Your task to perform on an android device: Clear the shopping cart on bestbuy. Search for logitech g933 on bestbuy, select the first entry, and add it to the cart. Image 0: 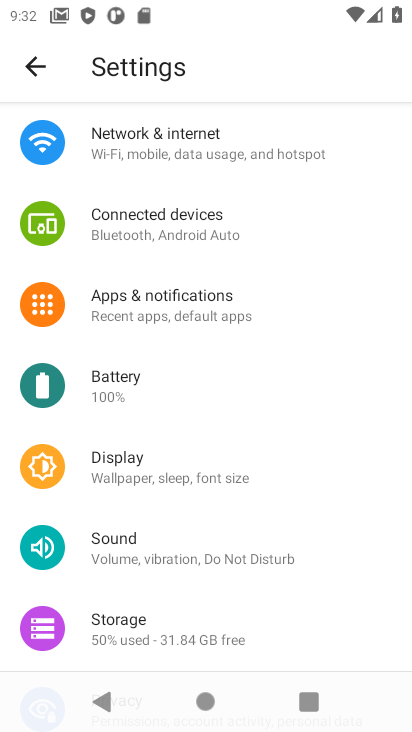
Step 0: press home button
Your task to perform on an android device: Clear the shopping cart on bestbuy. Search for logitech g933 on bestbuy, select the first entry, and add it to the cart. Image 1: 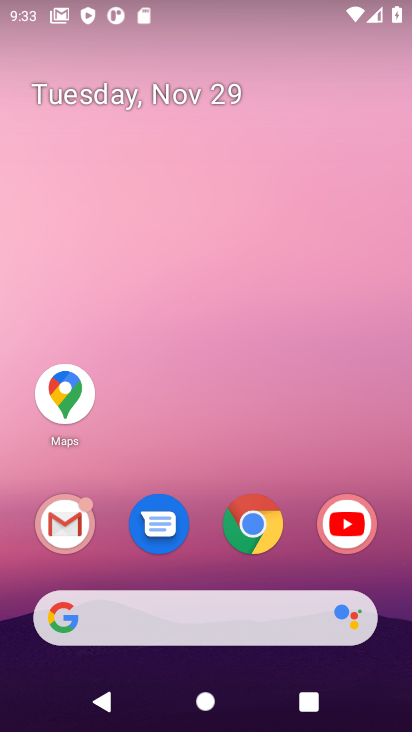
Step 1: click (266, 516)
Your task to perform on an android device: Clear the shopping cart on bestbuy. Search for logitech g933 on bestbuy, select the first entry, and add it to the cart. Image 2: 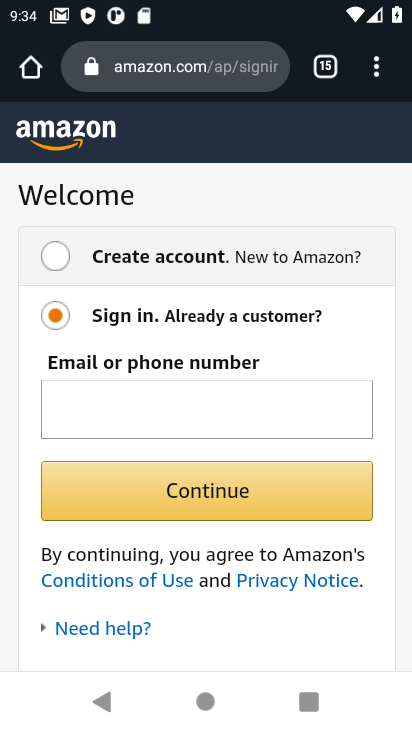
Step 2: click (147, 81)
Your task to perform on an android device: Clear the shopping cart on bestbuy. Search for logitech g933 on bestbuy, select the first entry, and add it to the cart. Image 3: 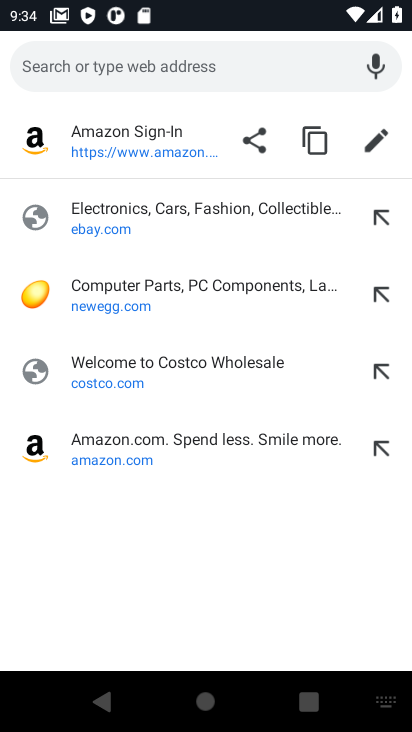
Step 3: type "bestbuy.com"
Your task to perform on an android device: Clear the shopping cart on bestbuy. Search for logitech g933 on bestbuy, select the first entry, and add it to the cart. Image 4: 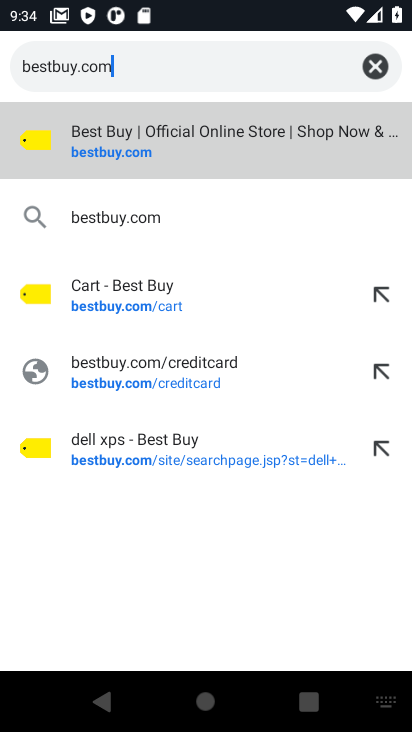
Step 4: click (119, 139)
Your task to perform on an android device: Clear the shopping cart on bestbuy. Search for logitech g933 on bestbuy, select the first entry, and add it to the cart. Image 5: 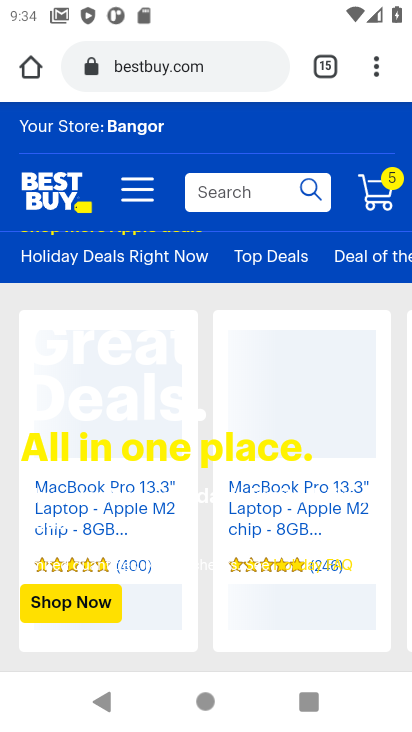
Step 5: click (383, 192)
Your task to perform on an android device: Clear the shopping cart on bestbuy. Search for logitech g933 on bestbuy, select the first entry, and add it to the cart. Image 6: 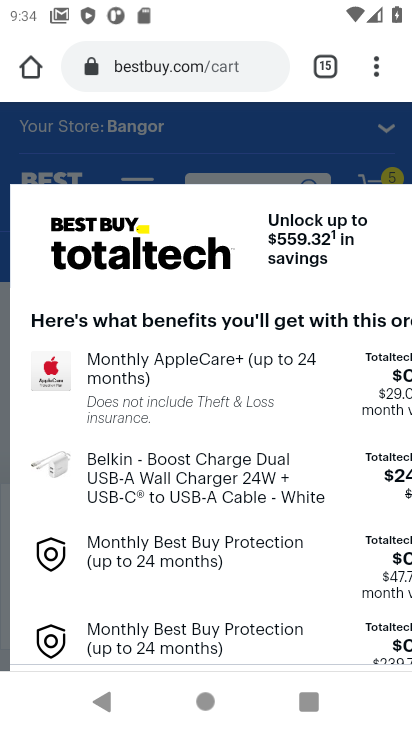
Step 6: click (301, 148)
Your task to perform on an android device: Clear the shopping cart on bestbuy. Search for logitech g933 on bestbuy, select the first entry, and add it to the cart. Image 7: 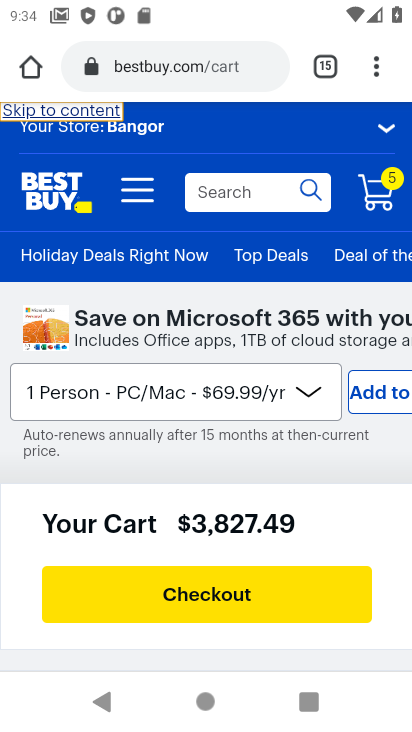
Step 7: drag from (251, 390) to (252, 160)
Your task to perform on an android device: Clear the shopping cart on bestbuy. Search for logitech g933 on bestbuy, select the first entry, and add it to the cart. Image 8: 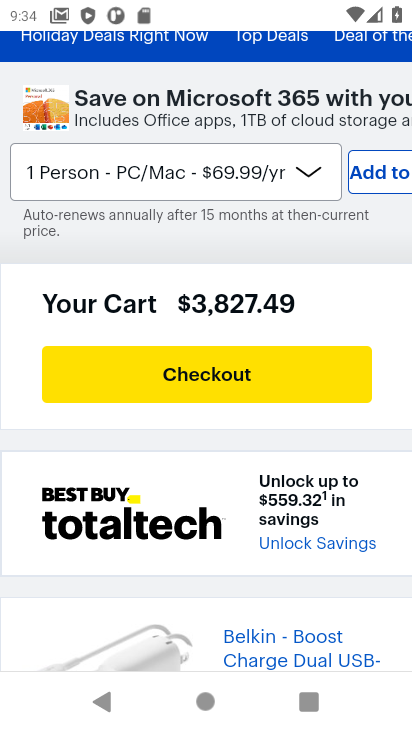
Step 8: drag from (191, 411) to (207, 152)
Your task to perform on an android device: Clear the shopping cart on bestbuy. Search for logitech g933 on bestbuy, select the first entry, and add it to the cart. Image 9: 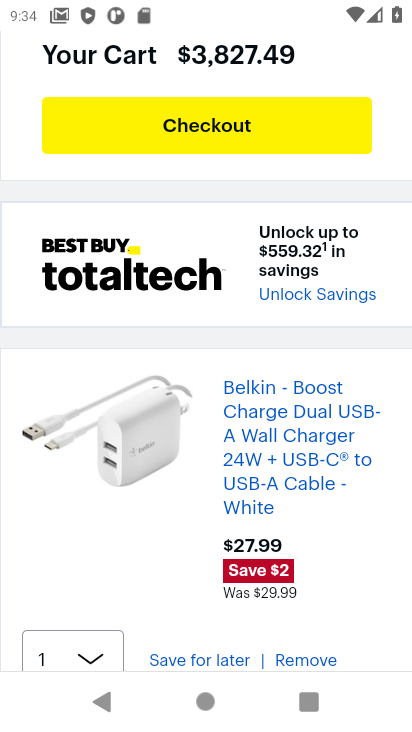
Step 9: drag from (195, 404) to (207, 147)
Your task to perform on an android device: Clear the shopping cart on bestbuy. Search for logitech g933 on bestbuy, select the first entry, and add it to the cart. Image 10: 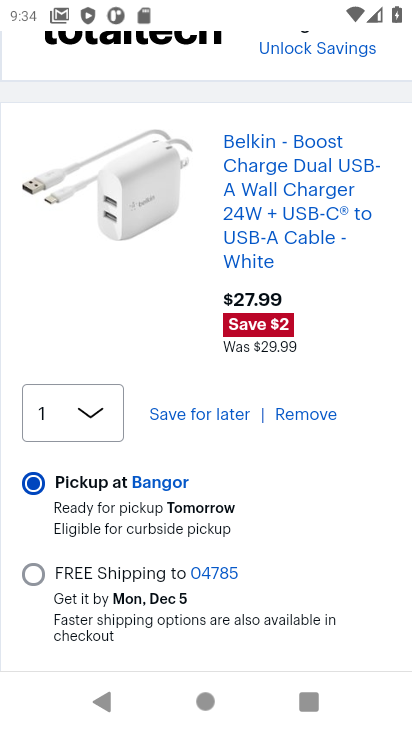
Step 10: click (298, 413)
Your task to perform on an android device: Clear the shopping cart on bestbuy. Search for logitech g933 on bestbuy, select the first entry, and add it to the cart. Image 11: 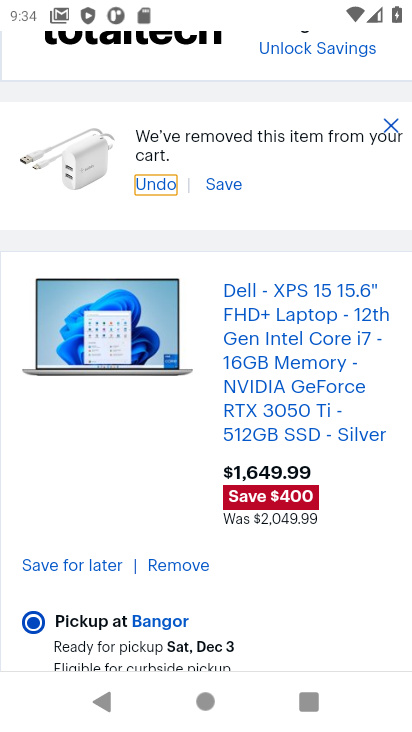
Step 11: click (169, 568)
Your task to perform on an android device: Clear the shopping cart on bestbuy. Search for logitech g933 on bestbuy, select the first entry, and add it to the cart. Image 12: 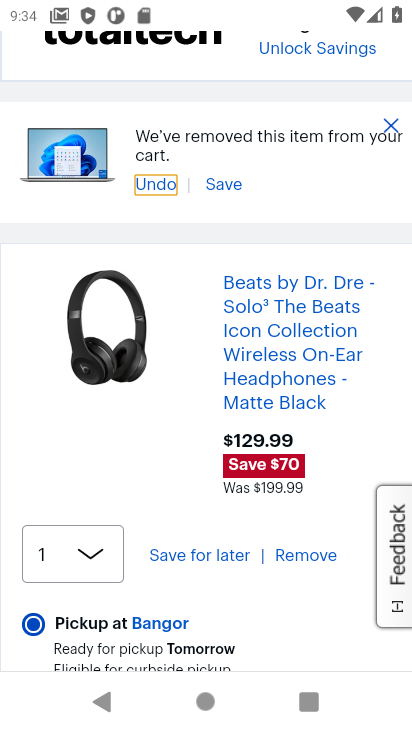
Step 12: click (285, 555)
Your task to perform on an android device: Clear the shopping cart on bestbuy. Search for logitech g933 on bestbuy, select the first entry, and add it to the cart. Image 13: 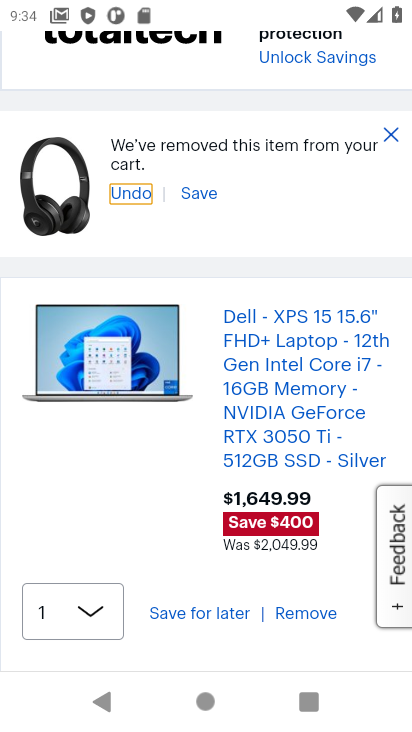
Step 13: click (297, 615)
Your task to perform on an android device: Clear the shopping cart on bestbuy. Search for logitech g933 on bestbuy, select the first entry, and add it to the cart. Image 14: 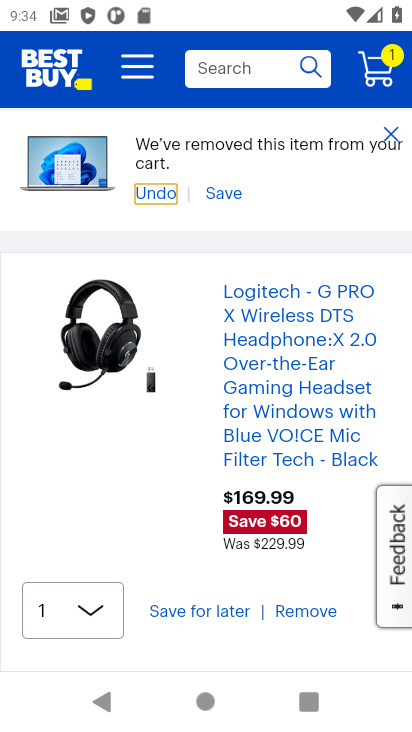
Step 14: click (297, 615)
Your task to perform on an android device: Clear the shopping cart on bestbuy. Search for logitech g933 on bestbuy, select the first entry, and add it to the cart. Image 15: 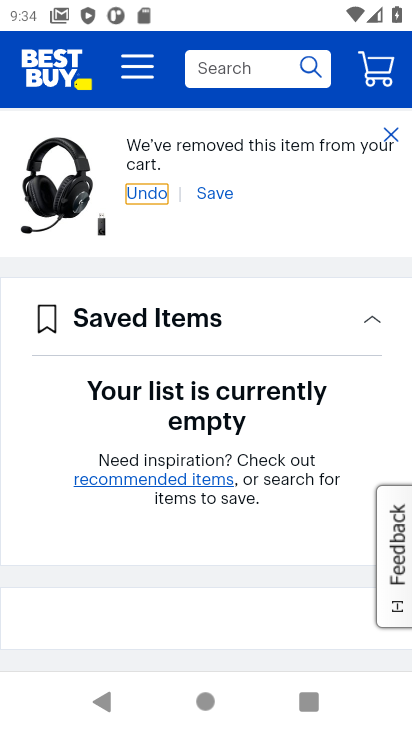
Step 15: drag from (257, 318) to (257, 565)
Your task to perform on an android device: Clear the shopping cart on bestbuy. Search for logitech g933 on bestbuy, select the first entry, and add it to the cart. Image 16: 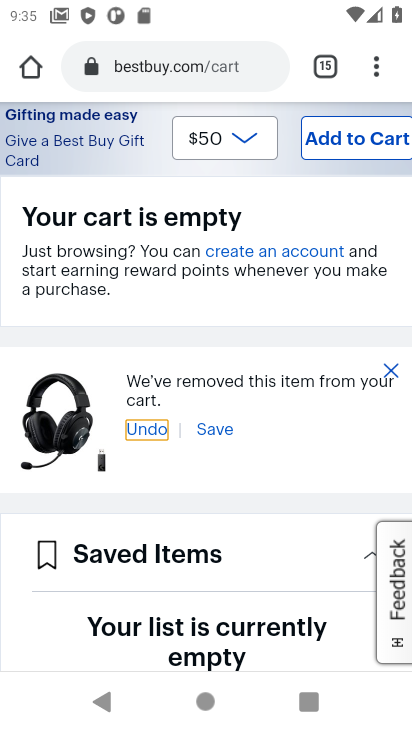
Step 16: drag from (199, 197) to (192, 373)
Your task to perform on an android device: Clear the shopping cart on bestbuy. Search for logitech g933 on bestbuy, select the first entry, and add it to the cart. Image 17: 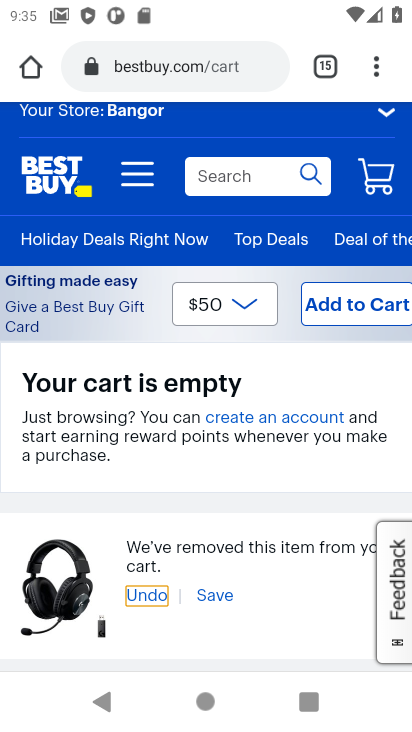
Step 17: click (207, 181)
Your task to perform on an android device: Clear the shopping cart on bestbuy. Search for logitech g933 on bestbuy, select the first entry, and add it to the cart. Image 18: 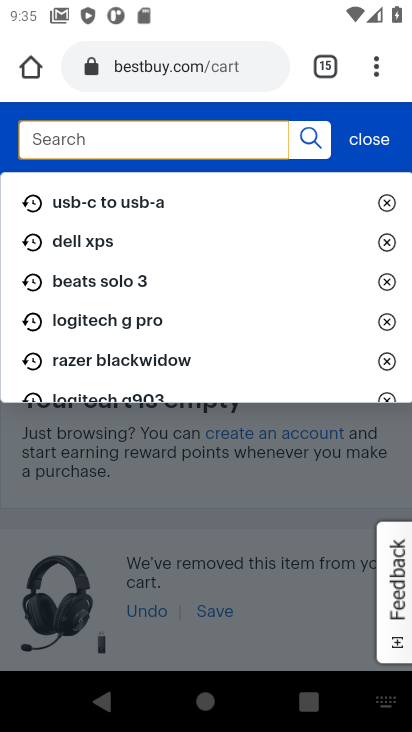
Step 18: type " logitech g933"
Your task to perform on an android device: Clear the shopping cart on bestbuy. Search for logitech g933 on bestbuy, select the first entry, and add it to the cart. Image 19: 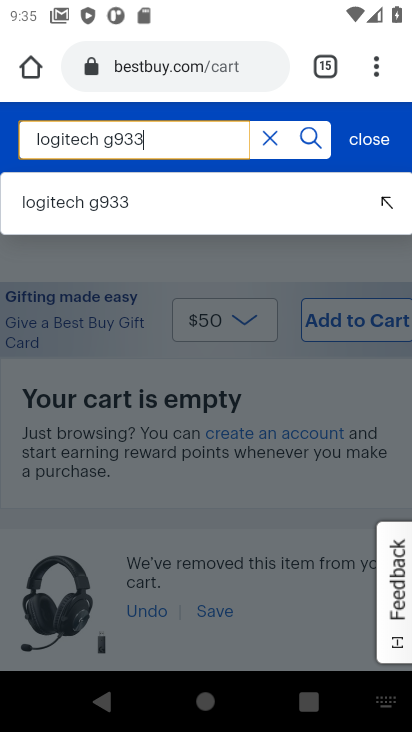
Step 19: click (98, 202)
Your task to perform on an android device: Clear the shopping cart on bestbuy. Search for logitech g933 on bestbuy, select the first entry, and add it to the cart. Image 20: 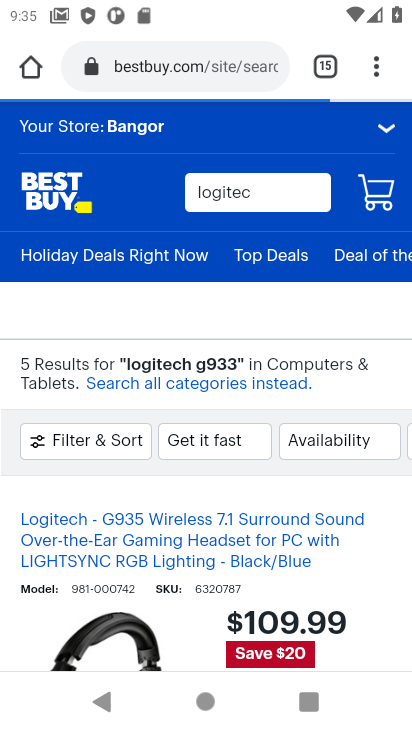
Step 20: task complete